Your task to perform on an android device: Is it going to rain today? Image 0: 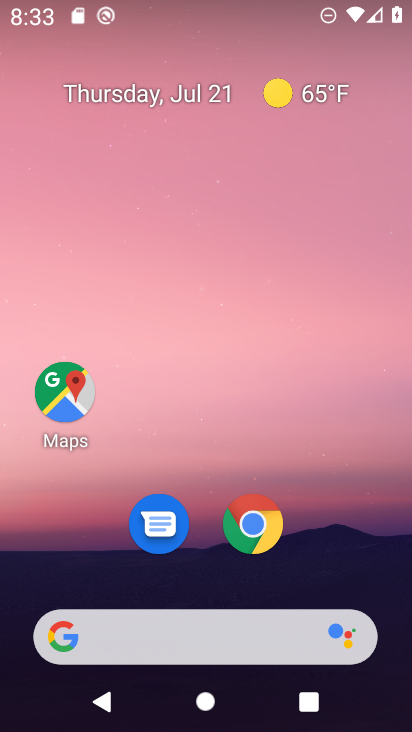
Step 0: drag from (182, 622) to (152, 670)
Your task to perform on an android device: Is it going to rain today? Image 1: 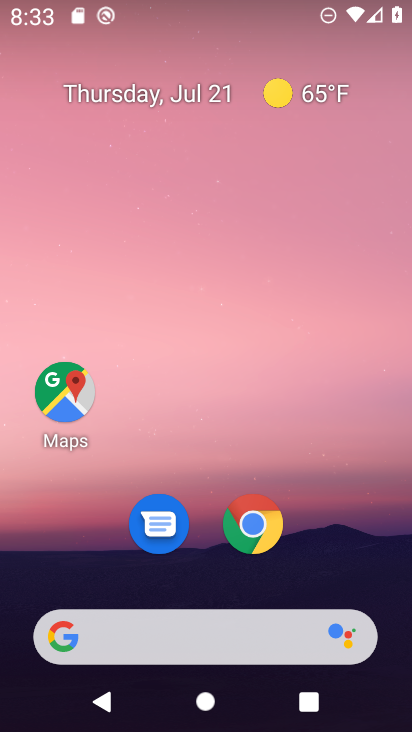
Step 1: click (284, 85)
Your task to perform on an android device: Is it going to rain today? Image 2: 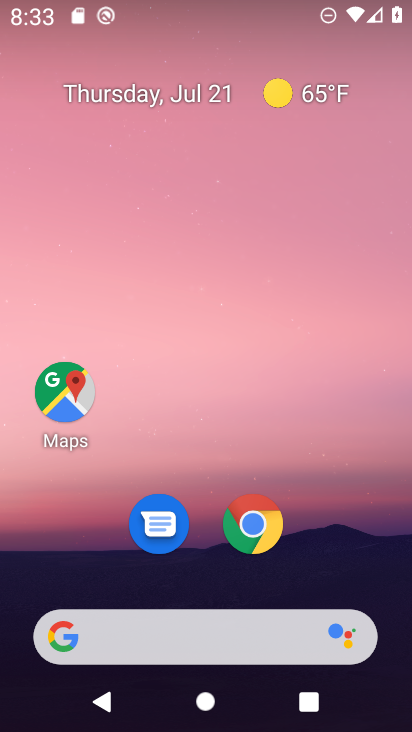
Step 2: click (291, 92)
Your task to perform on an android device: Is it going to rain today? Image 3: 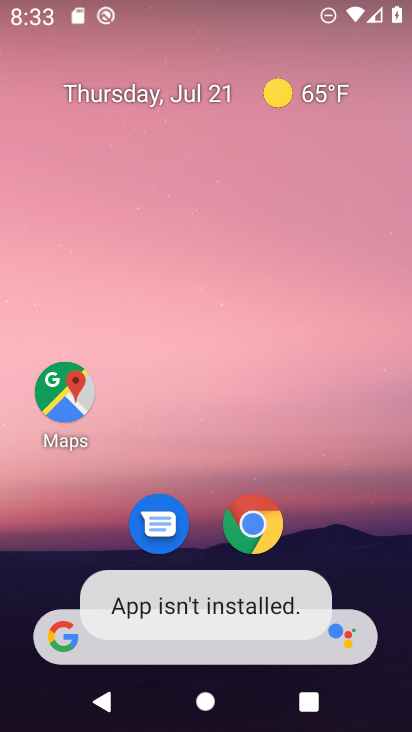
Step 3: click (238, 508)
Your task to perform on an android device: Is it going to rain today? Image 4: 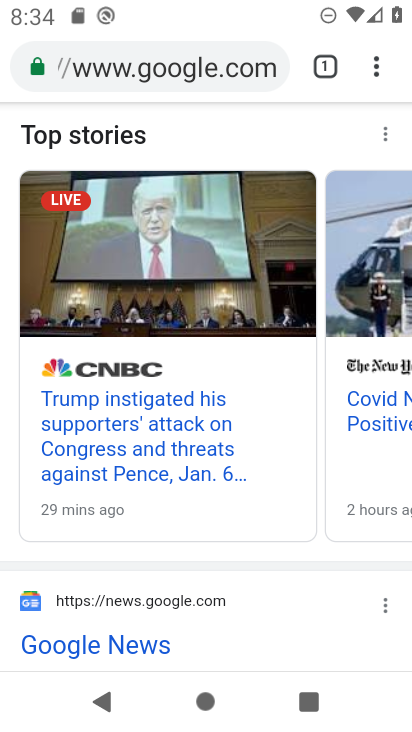
Step 4: click (166, 63)
Your task to perform on an android device: Is it going to rain today? Image 5: 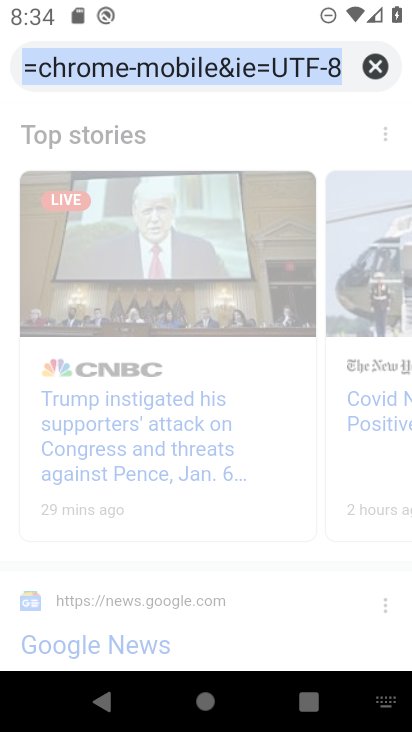
Step 5: type "weather today"
Your task to perform on an android device: Is it going to rain today? Image 6: 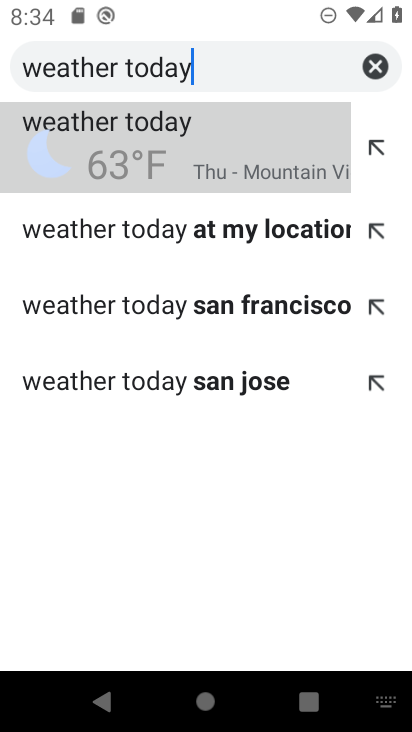
Step 6: click (50, 143)
Your task to perform on an android device: Is it going to rain today? Image 7: 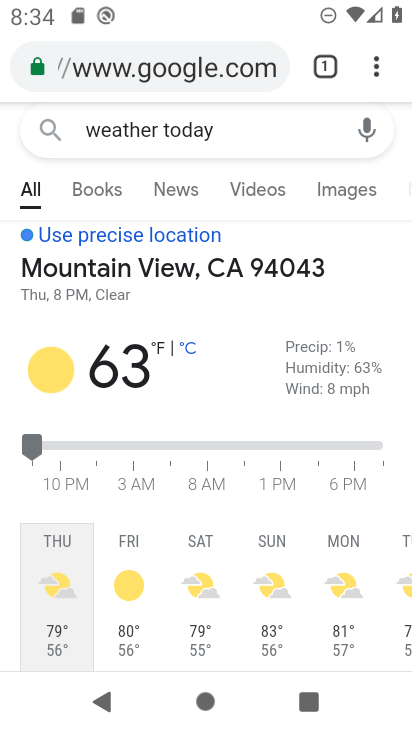
Step 7: task complete